Your task to perform on an android device: Search for Mexican restaurants on Maps Image 0: 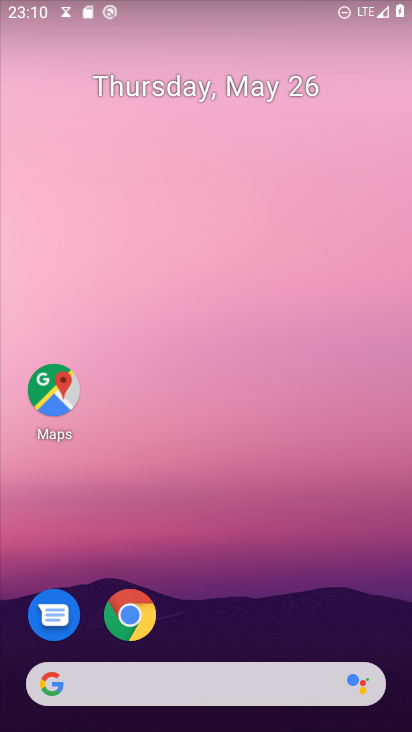
Step 0: click (46, 380)
Your task to perform on an android device: Search for Mexican restaurants on Maps Image 1: 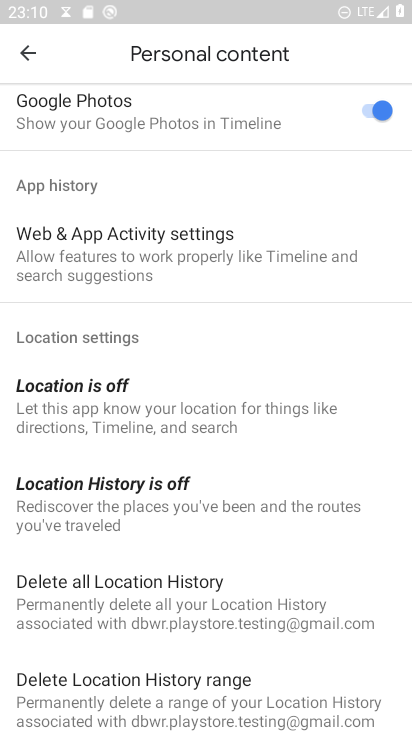
Step 1: click (33, 48)
Your task to perform on an android device: Search for Mexican restaurants on Maps Image 2: 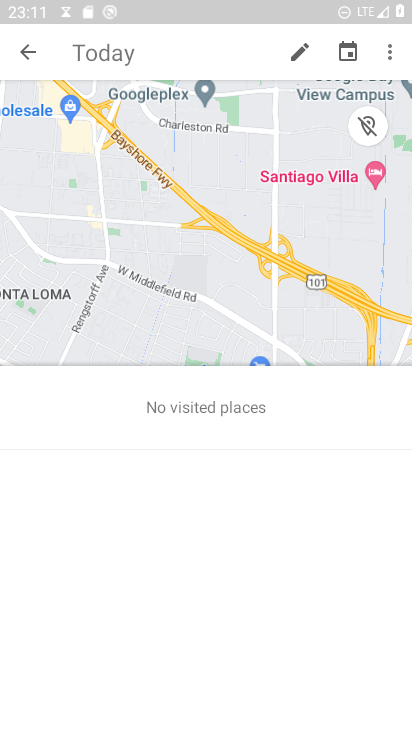
Step 2: click (36, 46)
Your task to perform on an android device: Search for Mexican restaurants on Maps Image 3: 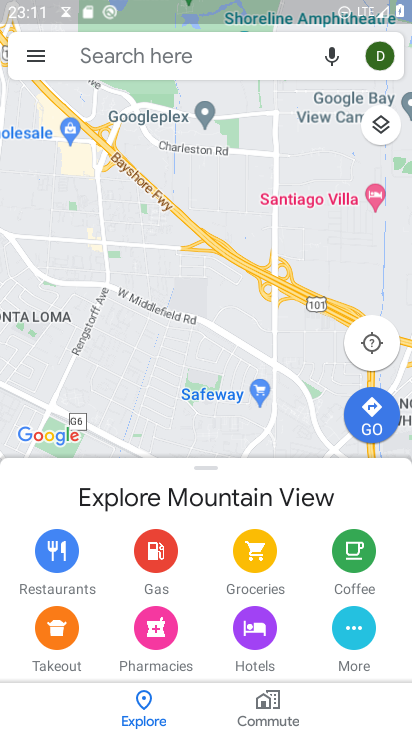
Step 3: click (168, 51)
Your task to perform on an android device: Search for Mexican restaurants on Maps Image 4: 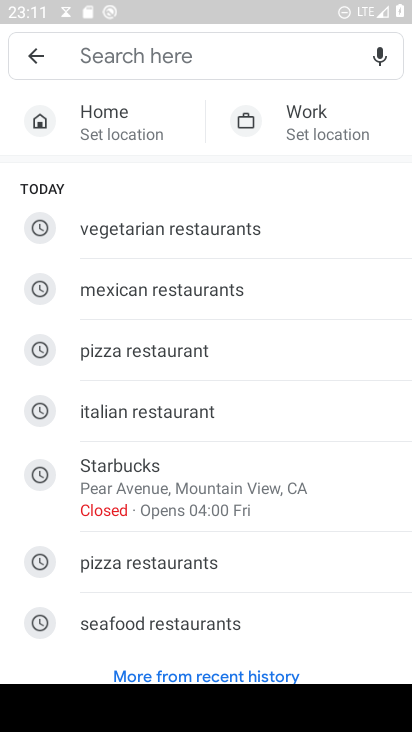
Step 4: click (144, 282)
Your task to perform on an android device: Search for Mexican restaurants on Maps Image 5: 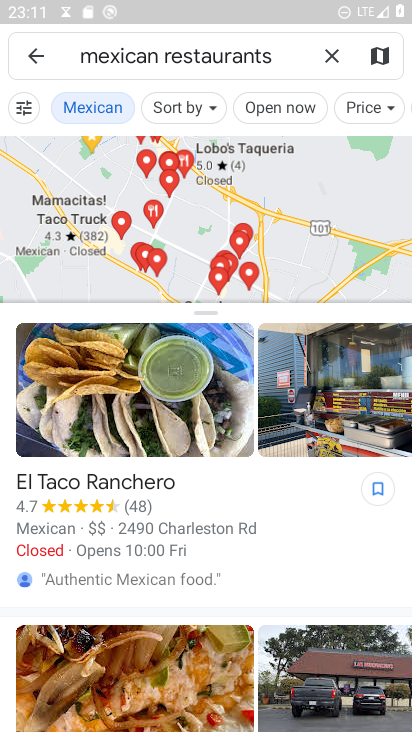
Step 5: task complete